Your task to perform on an android device: Add asus zenbook to the cart on amazon Image 0: 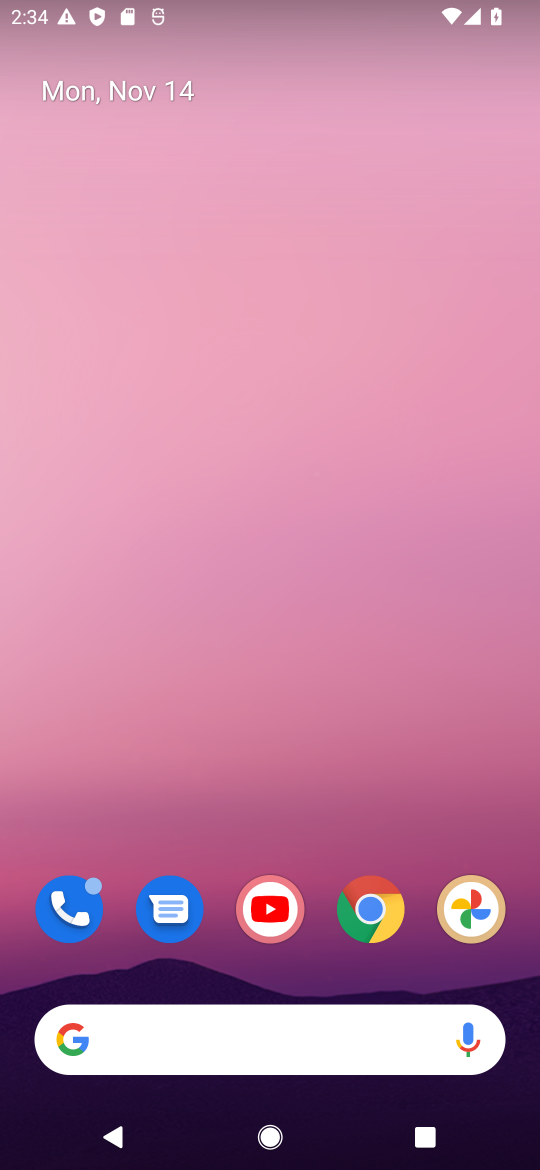
Step 0: drag from (315, 966) to (440, 22)
Your task to perform on an android device: Add asus zenbook to the cart on amazon Image 1: 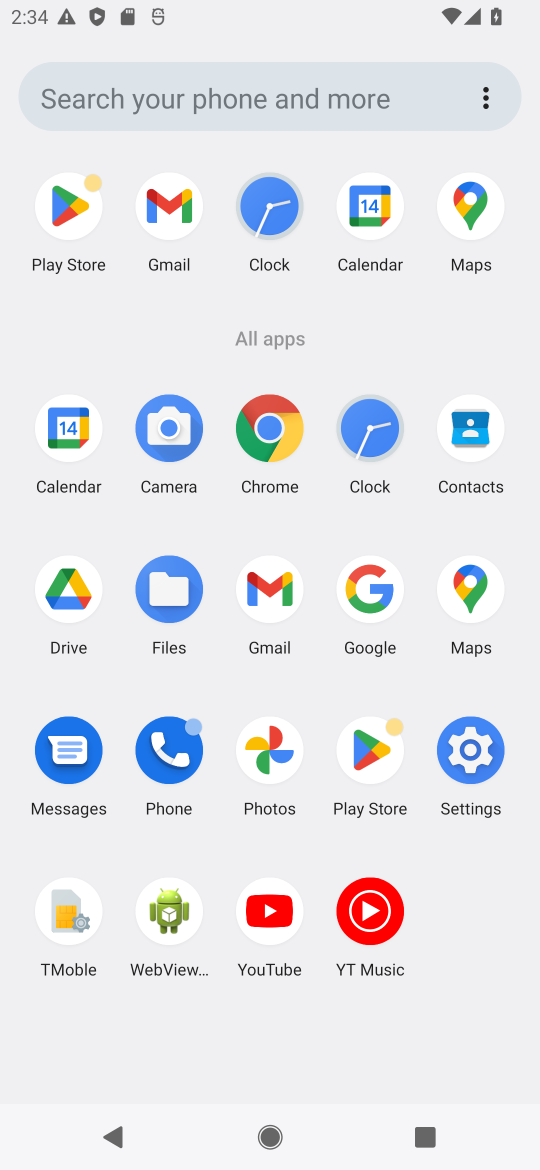
Step 1: click (261, 423)
Your task to perform on an android device: Add asus zenbook to the cart on amazon Image 2: 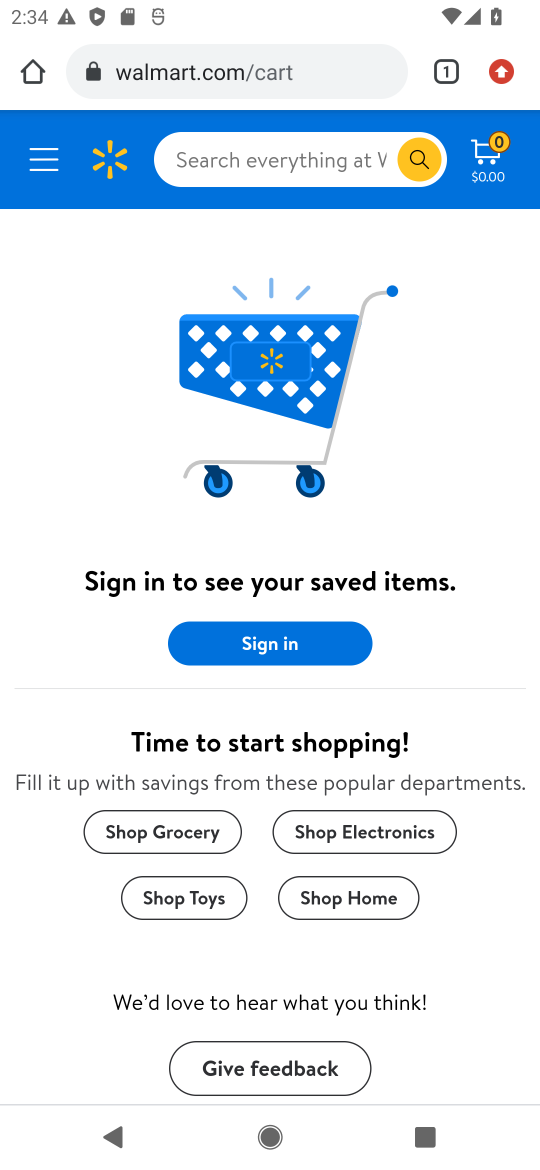
Step 2: click (302, 159)
Your task to perform on an android device: Add asus zenbook to the cart on amazon Image 3: 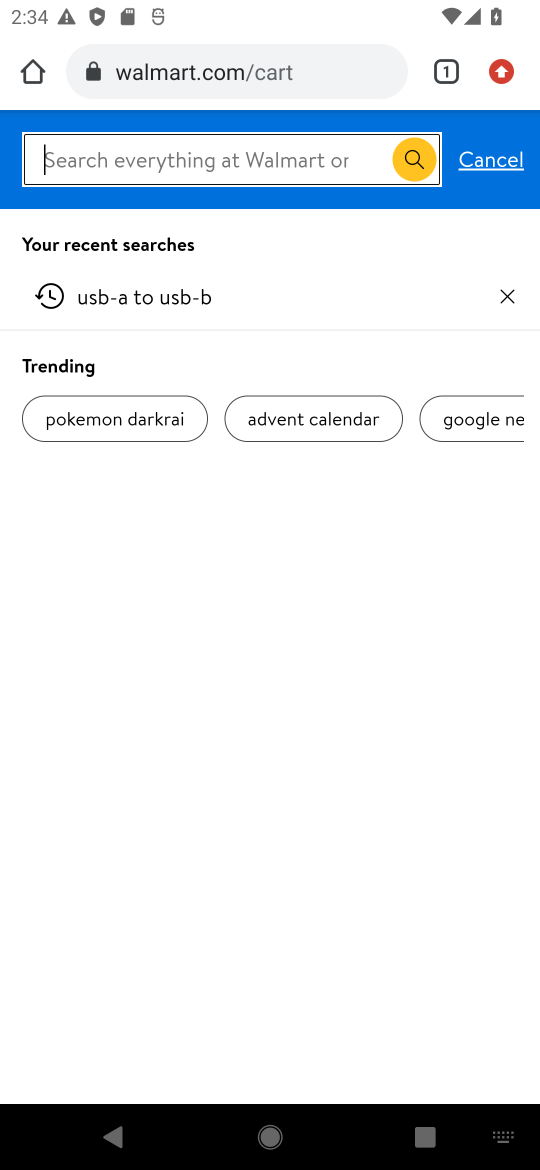
Step 3: click (240, 73)
Your task to perform on an android device: Add asus zenbook to the cart on amazon Image 4: 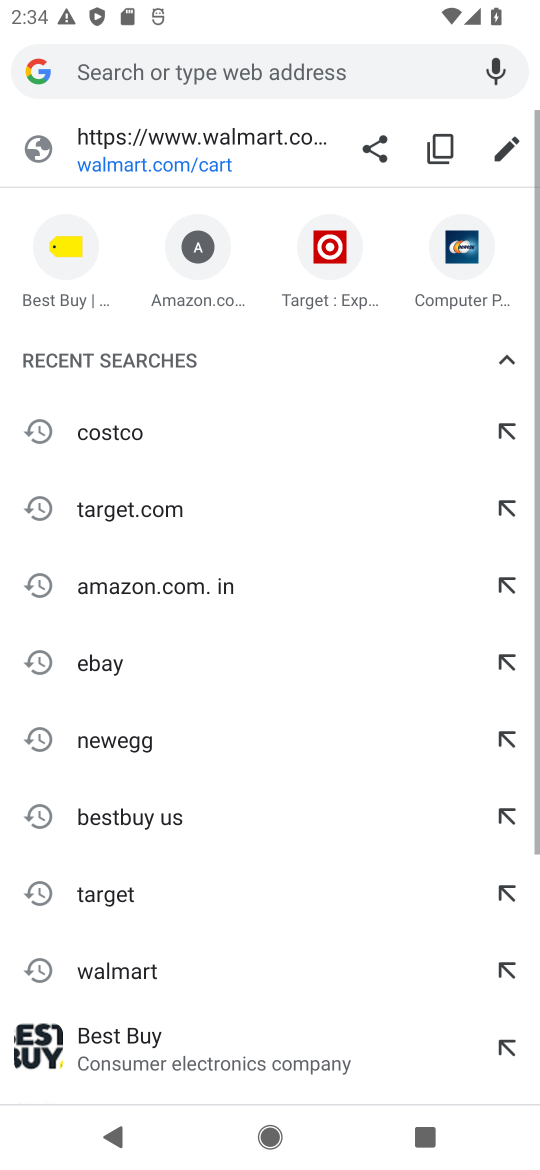
Step 4: type "amazon.com"
Your task to perform on an android device: Add asus zenbook to the cart on amazon Image 5: 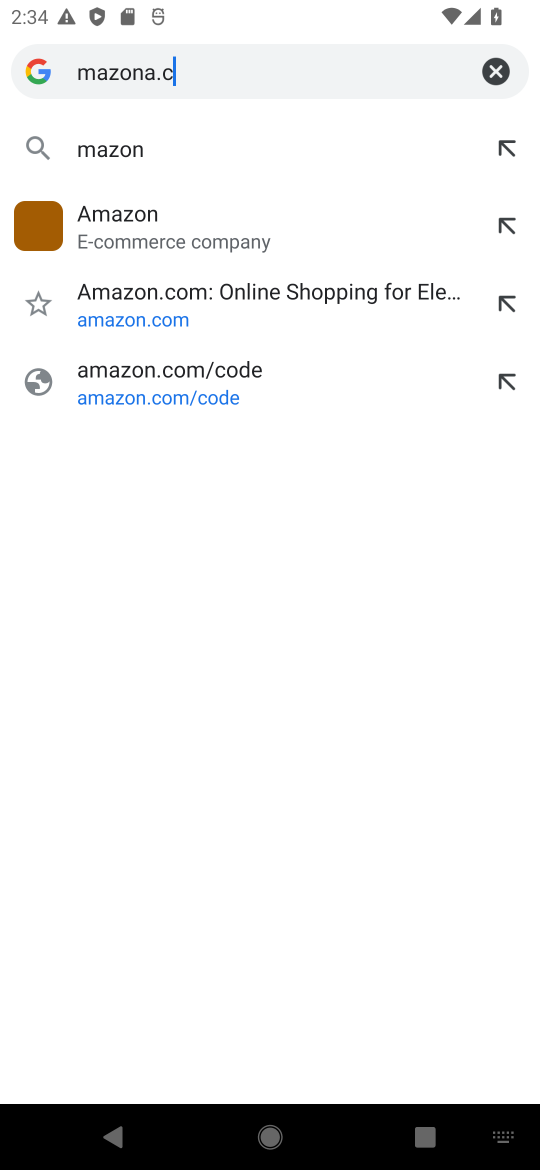
Step 5: press enter
Your task to perform on an android device: Add asus zenbook to the cart on amazon Image 6: 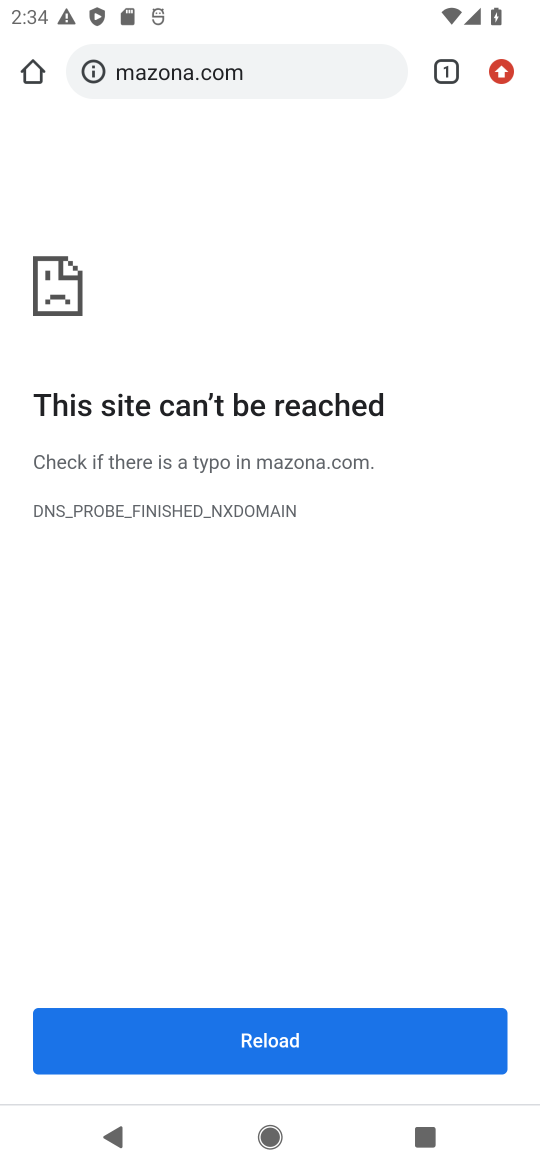
Step 6: click (329, 60)
Your task to perform on an android device: Add asus zenbook to the cart on amazon Image 7: 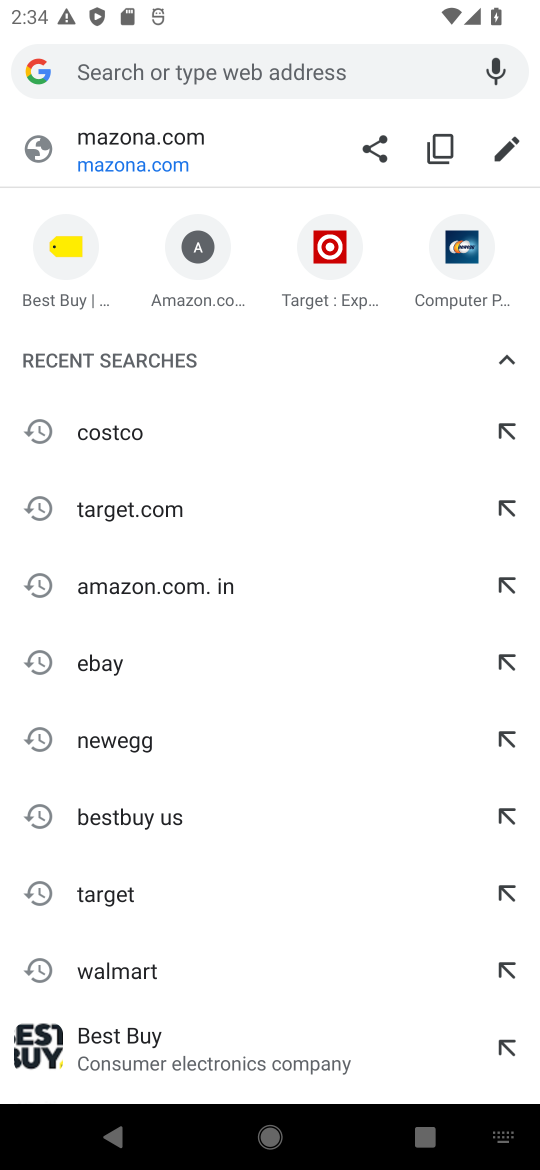
Step 7: type "amazon.com"
Your task to perform on an android device: Add asus zenbook to the cart on amazon Image 8: 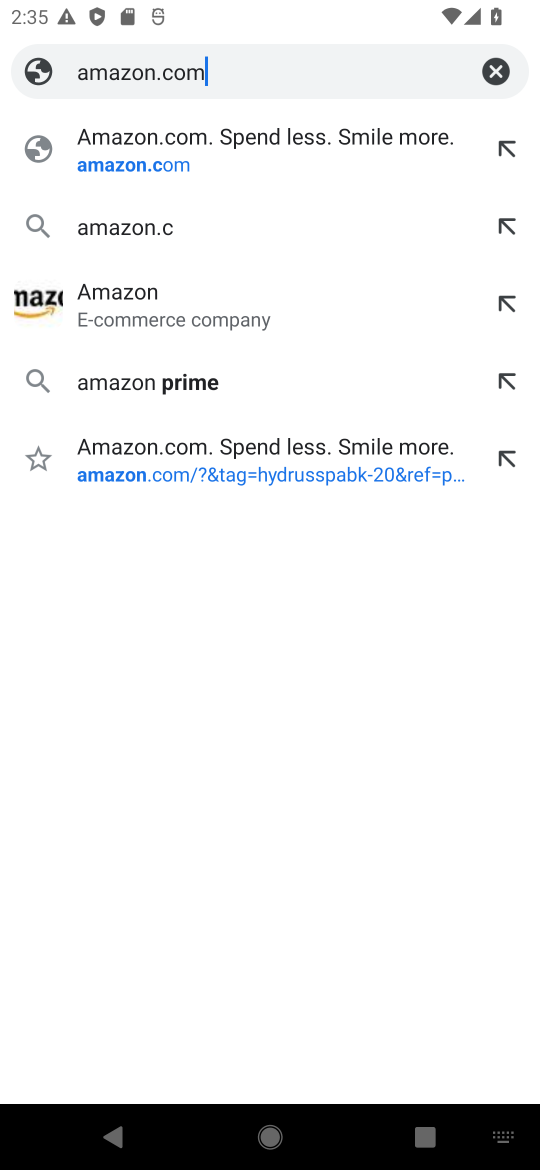
Step 8: press enter
Your task to perform on an android device: Add asus zenbook to the cart on amazon Image 9: 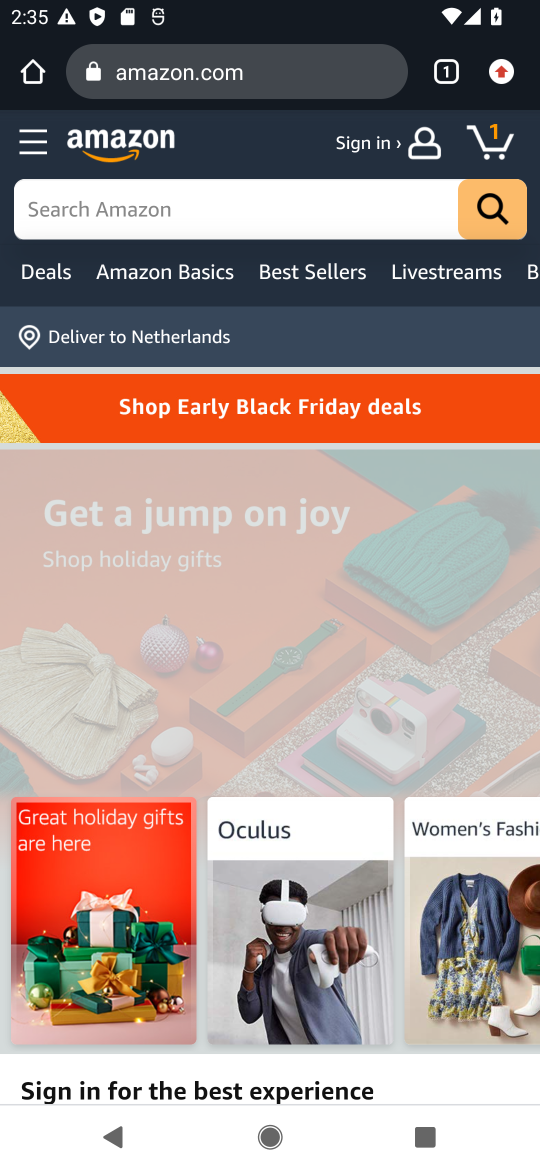
Step 9: click (245, 222)
Your task to perform on an android device: Add asus zenbook to the cart on amazon Image 10: 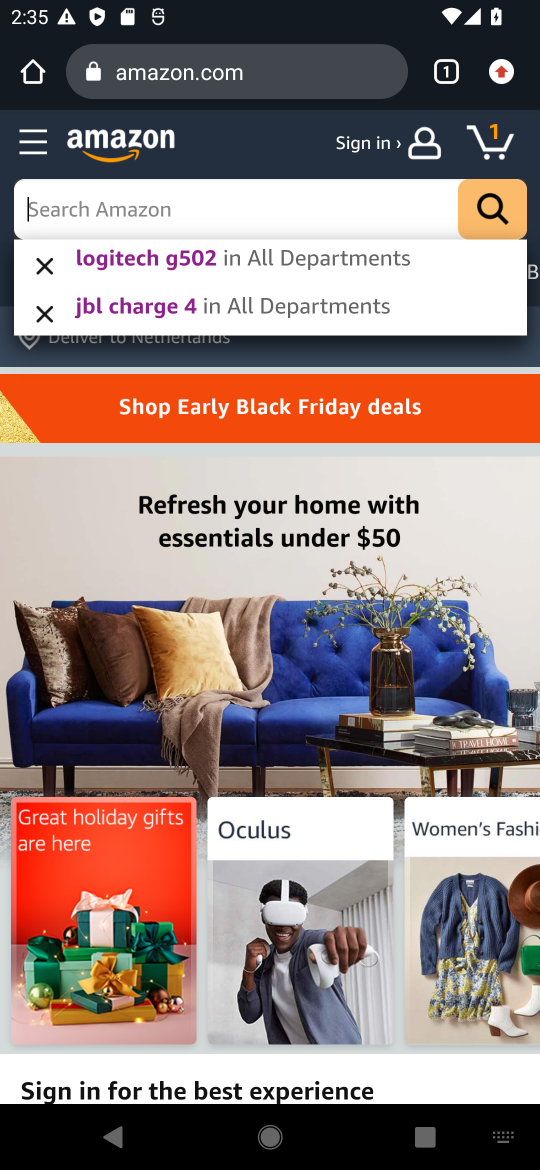
Step 10: type "asus zenbook"
Your task to perform on an android device: Add asus zenbook to the cart on amazon Image 11: 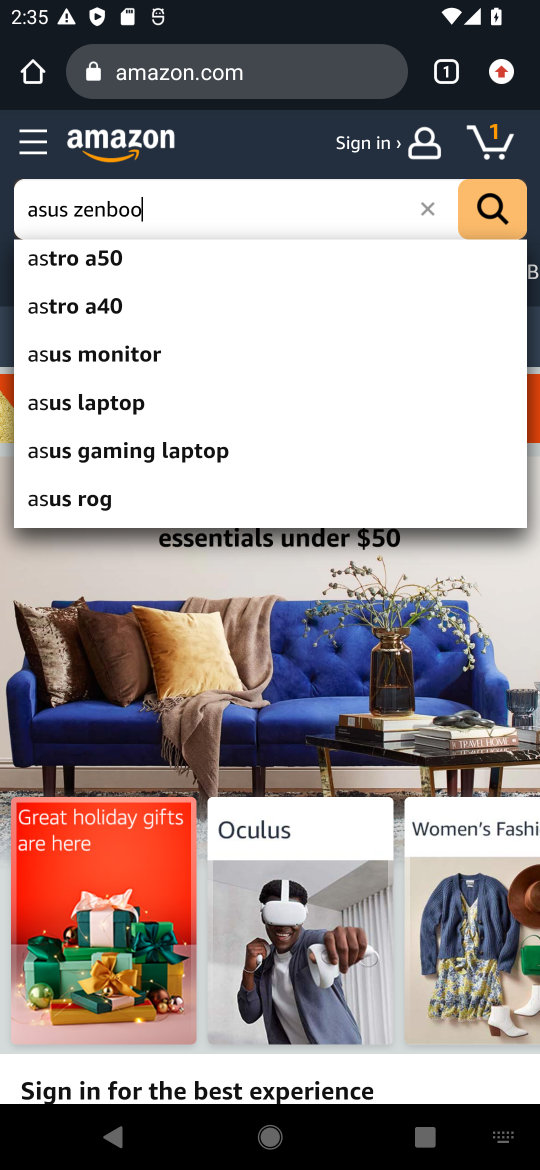
Step 11: press enter
Your task to perform on an android device: Add asus zenbook to the cart on amazon Image 12: 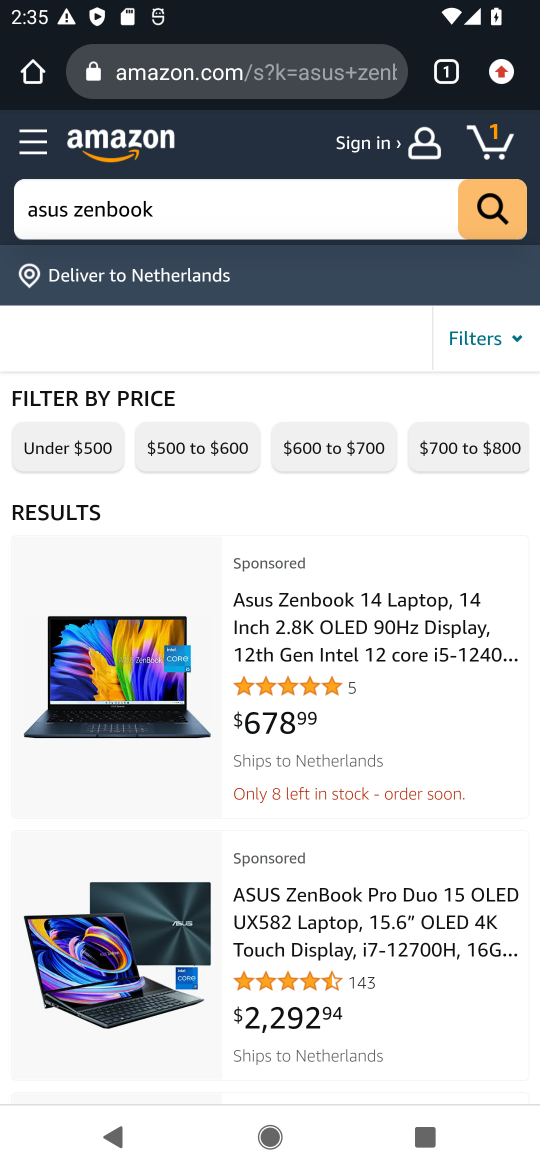
Step 12: drag from (336, 963) to (363, 513)
Your task to perform on an android device: Add asus zenbook to the cart on amazon Image 13: 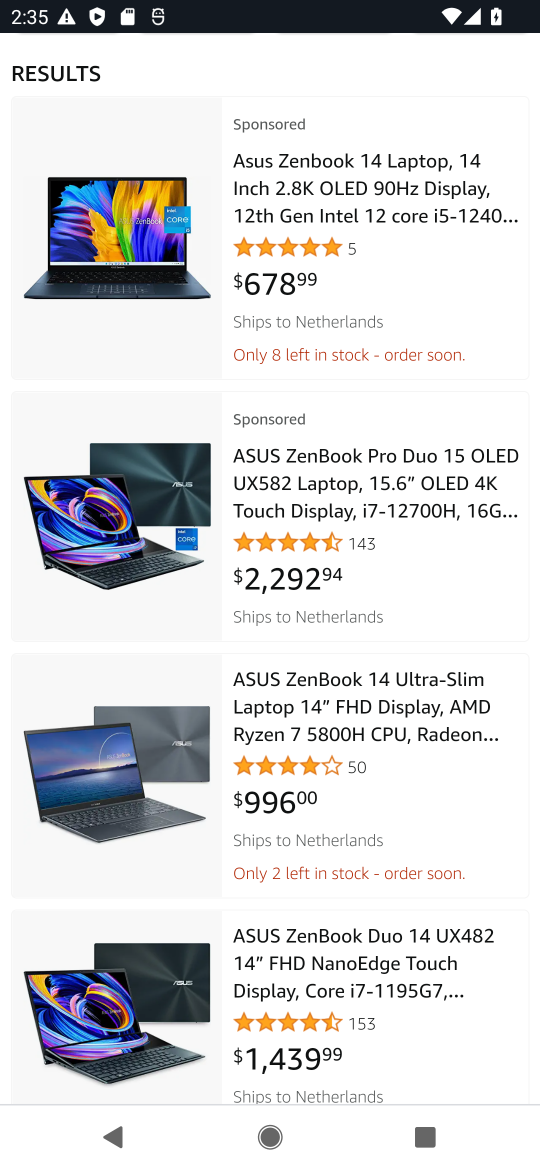
Step 13: click (266, 722)
Your task to perform on an android device: Add asus zenbook to the cart on amazon Image 14: 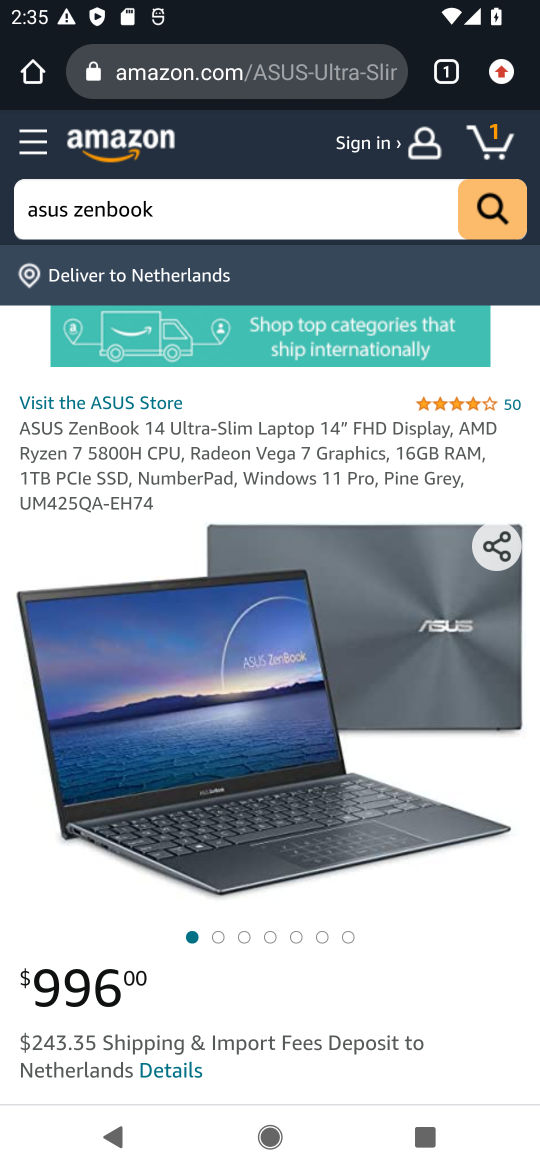
Step 14: drag from (343, 835) to (306, 17)
Your task to perform on an android device: Add asus zenbook to the cart on amazon Image 15: 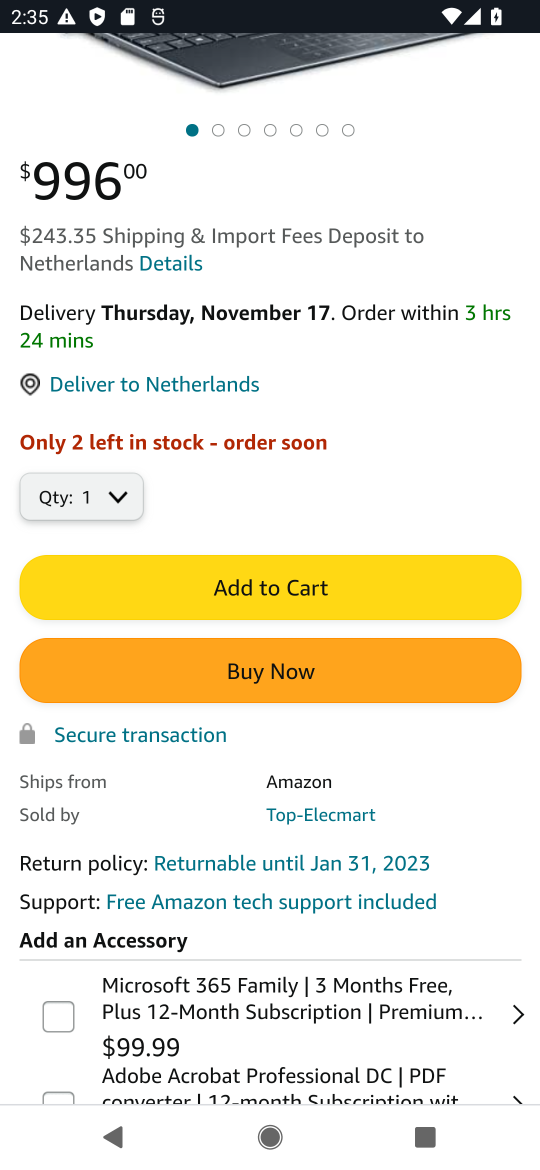
Step 15: click (360, 587)
Your task to perform on an android device: Add asus zenbook to the cart on amazon Image 16: 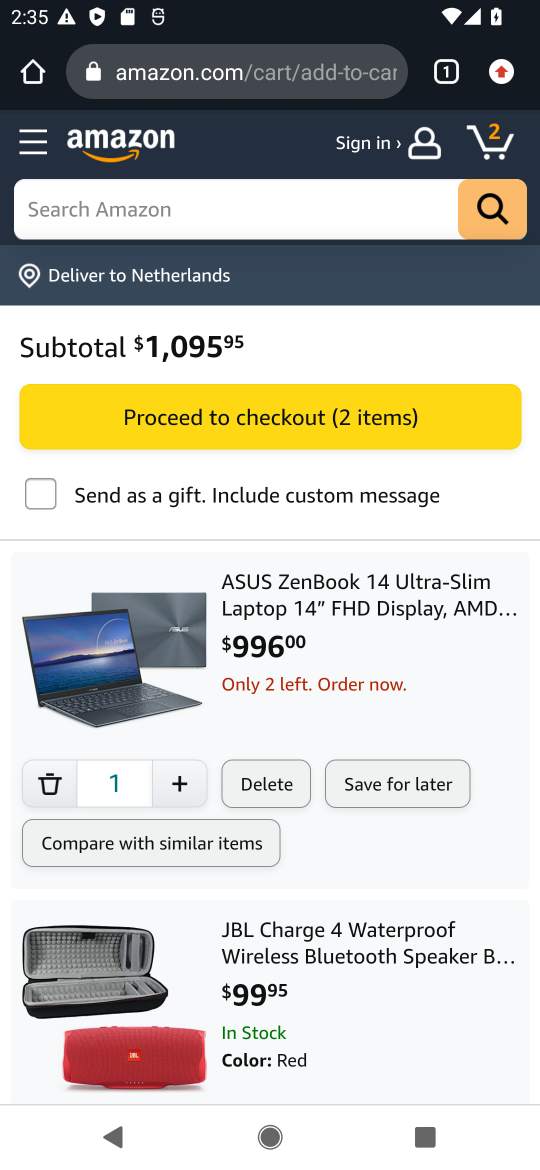
Step 16: task complete